Your task to perform on an android device: turn on showing notifications on the lock screen Image 0: 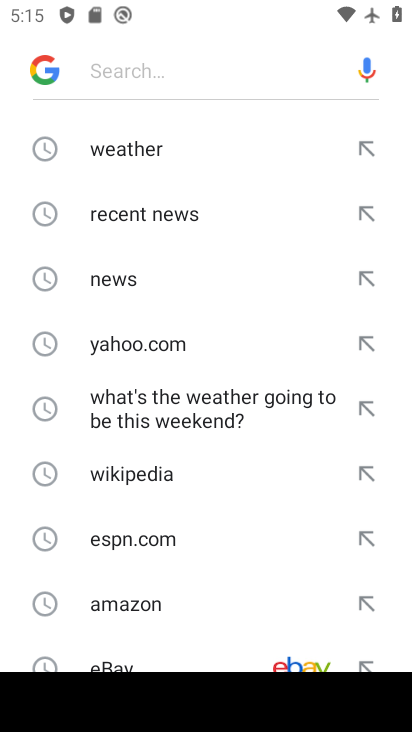
Step 0: press home button
Your task to perform on an android device: turn on showing notifications on the lock screen Image 1: 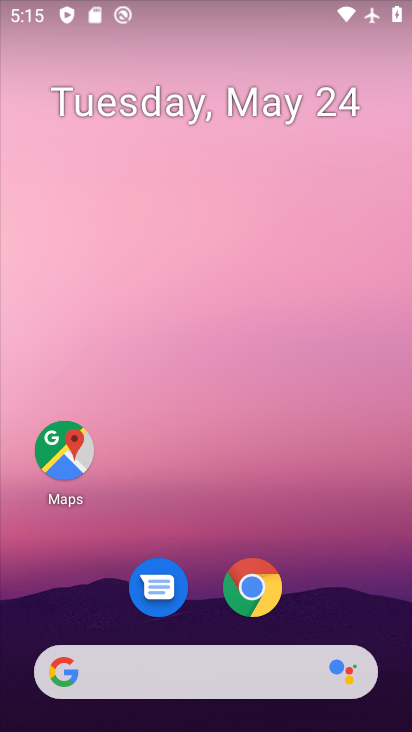
Step 1: drag from (354, 547) to (154, 24)
Your task to perform on an android device: turn on showing notifications on the lock screen Image 2: 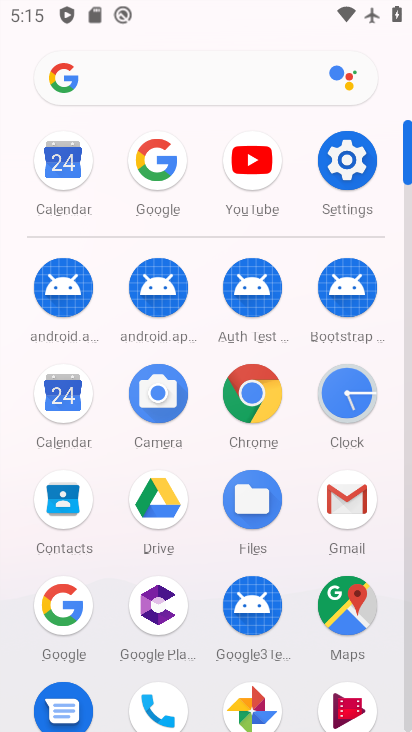
Step 2: click (344, 166)
Your task to perform on an android device: turn on showing notifications on the lock screen Image 3: 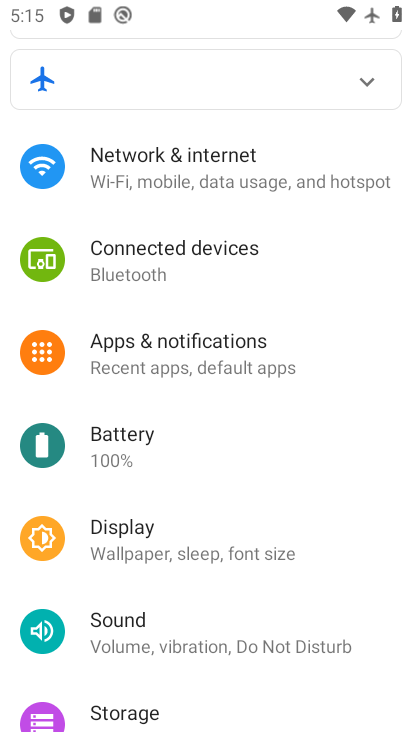
Step 3: click (231, 337)
Your task to perform on an android device: turn on showing notifications on the lock screen Image 4: 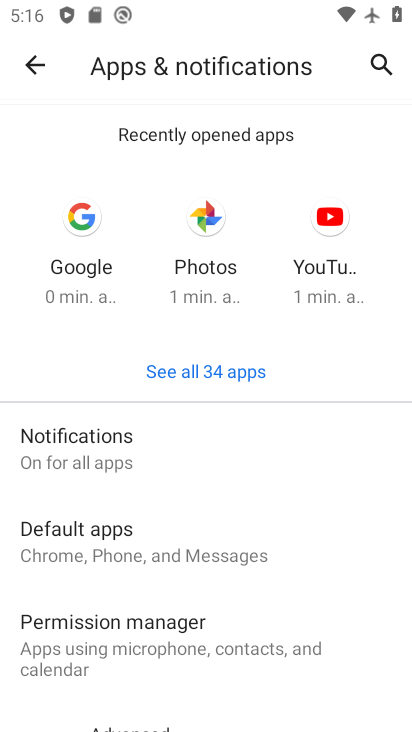
Step 4: click (171, 458)
Your task to perform on an android device: turn on showing notifications on the lock screen Image 5: 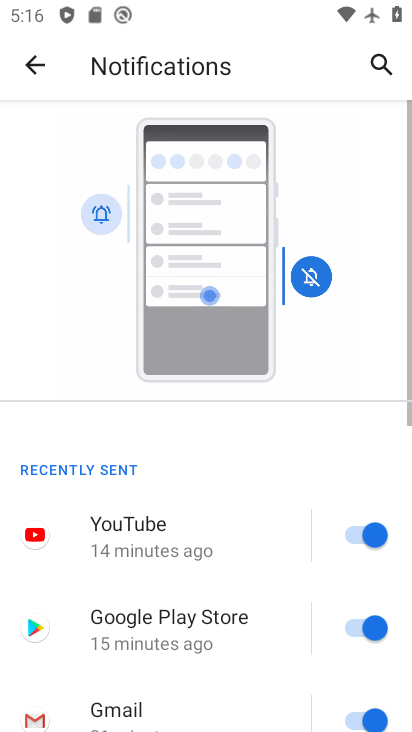
Step 5: drag from (298, 591) to (244, 120)
Your task to perform on an android device: turn on showing notifications on the lock screen Image 6: 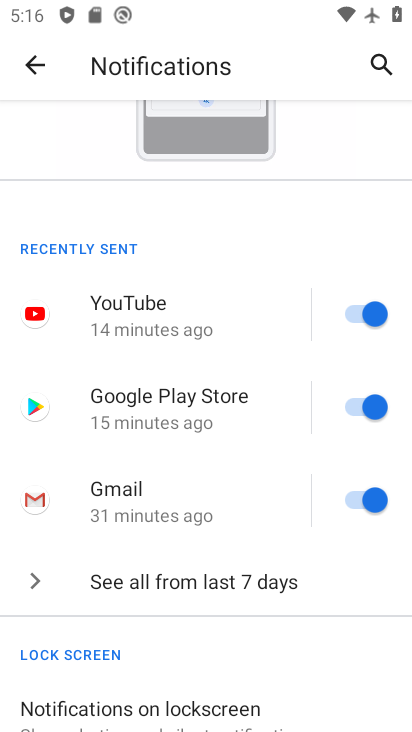
Step 6: click (252, 694)
Your task to perform on an android device: turn on showing notifications on the lock screen Image 7: 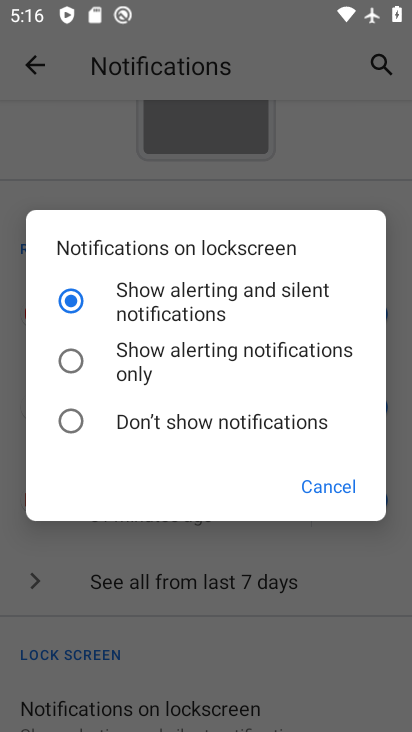
Step 7: task complete